Your task to perform on an android device: turn on javascript in the chrome app Image 0: 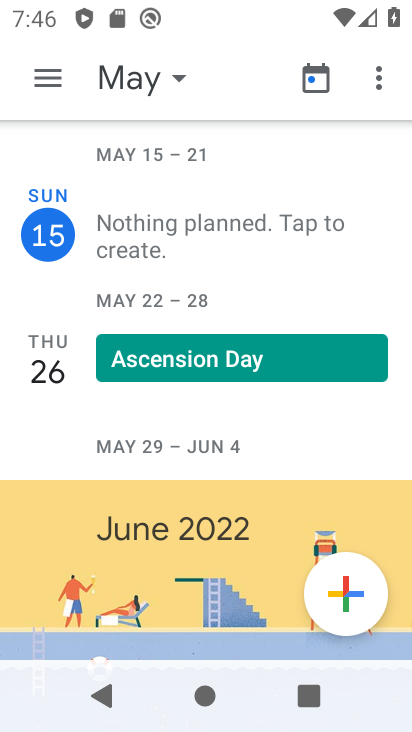
Step 0: press home button
Your task to perform on an android device: turn on javascript in the chrome app Image 1: 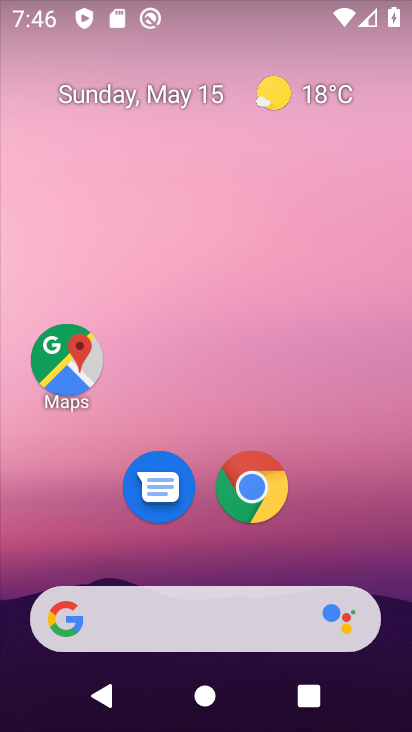
Step 1: click (265, 485)
Your task to perform on an android device: turn on javascript in the chrome app Image 2: 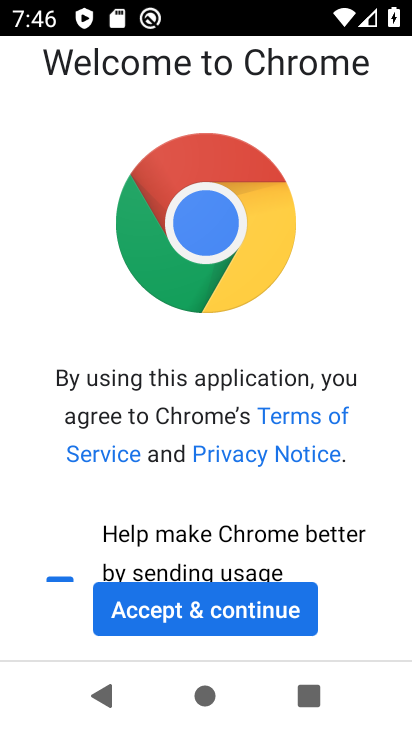
Step 2: click (205, 606)
Your task to perform on an android device: turn on javascript in the chrome app Image 3: 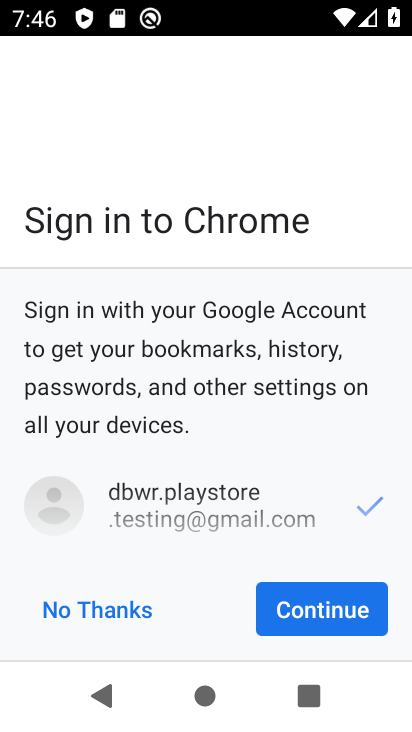
Step 3: click (340, 613)
Your task to perform on an android device: turn on javascript in the chrome app Image 4: 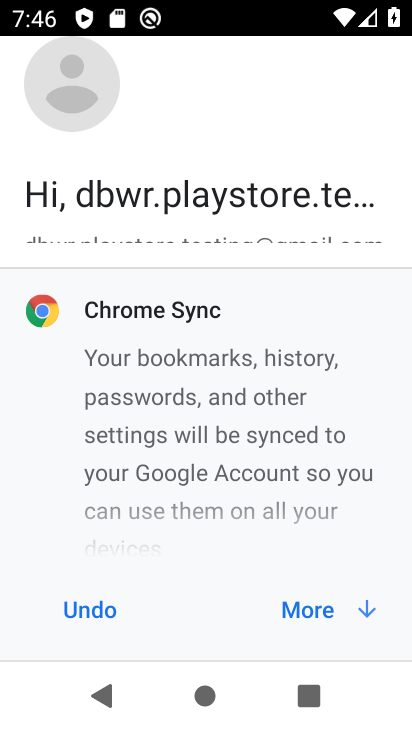
Step 4: click (340, 613)
Your task to perform on an android device: turn on javascript in the chrome app Image 5: 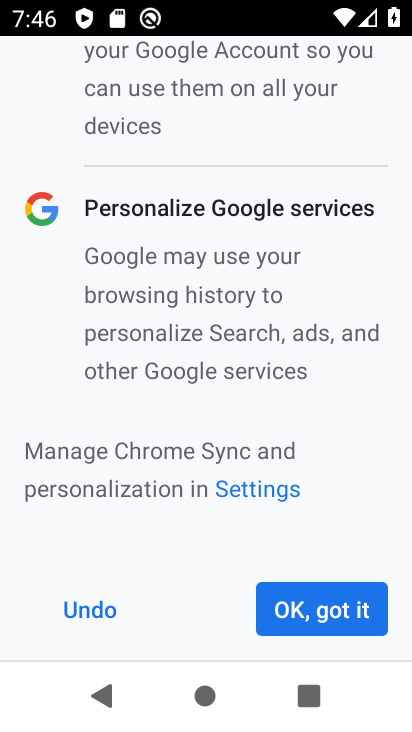
Step 5: click (340, 613)
Your task to perform on an android device: turn on javascript in the chrome app Image 6: 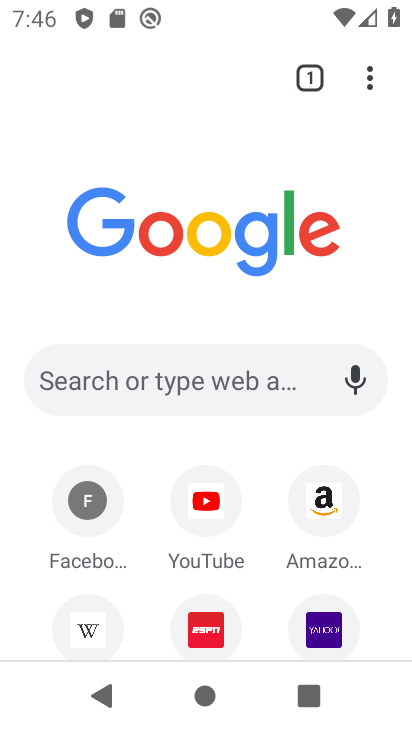
Step 6: click (388, 75)
Your task to perform on an android device: turn on javascript in the chrome app Image 7: 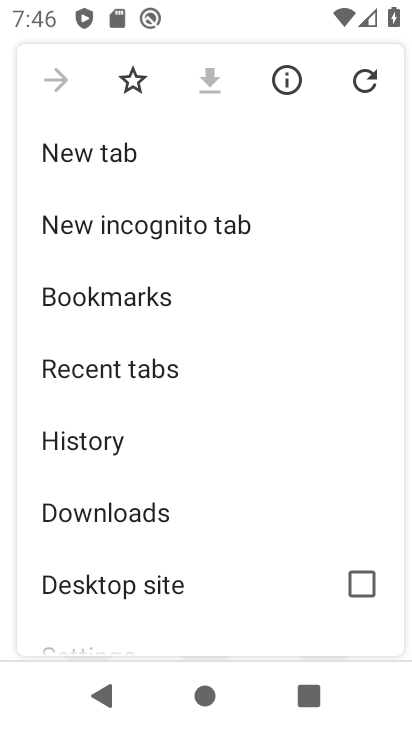
Step 7: drag from (99, 604) to (165, 208)
Your task to perform on an android device: turn on javascript in the chrome app Image 8: 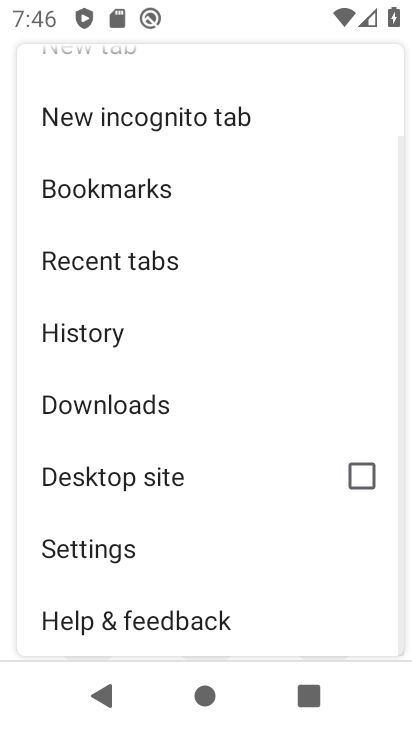
Step 8: drag from (163, 546) to (182, 360)
Your task to perform on an android device: turn on javascript in the chrome app Image 9: 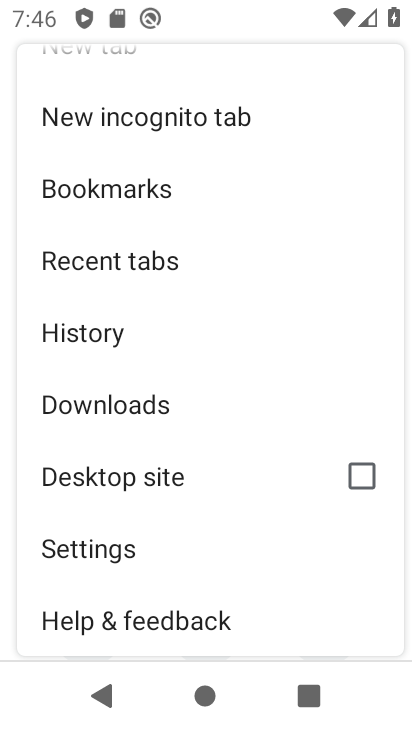
Step 9: click (169, 562)
Your task to perform on an android device: turn on javascript in the chrome app Image 10: 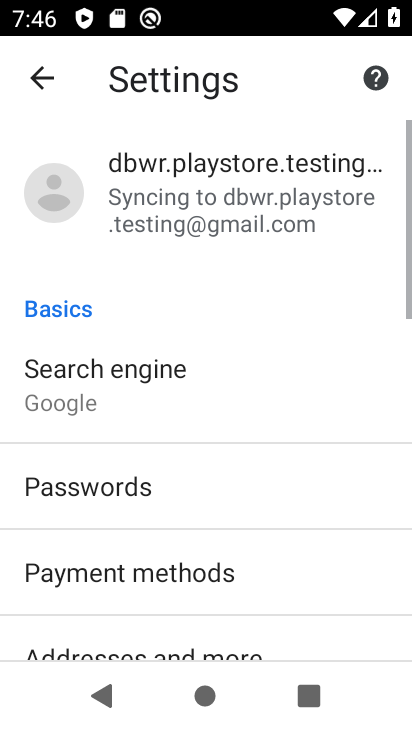
Step 10: drag from (169, 562) to (217, 174)
Your task to perform on an android device: turn on javascript in the chrome app Image 11: 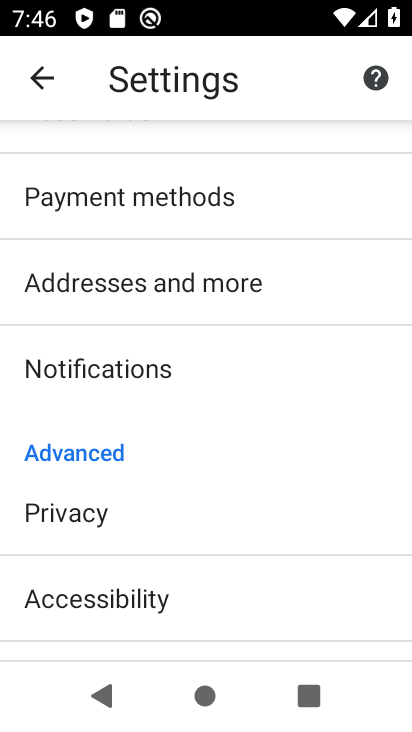
Step 11: drag from (86, 612) to (191, 260)
Your task to perform on an android device: turn on javascript in the chrome app Image 12: 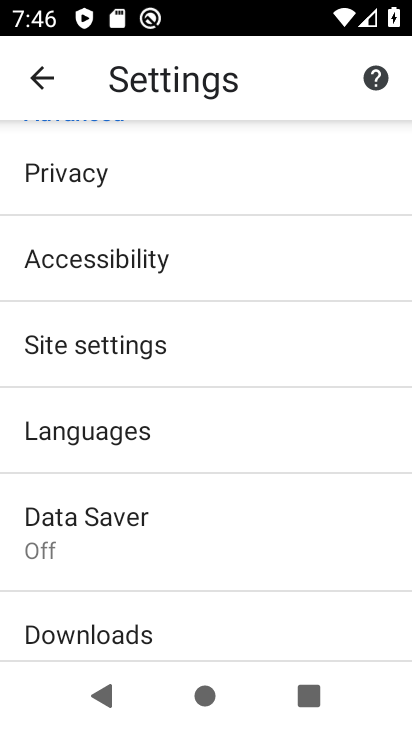
Step 12: click (176, 349)
Your task to perform on an android device: turn on javascript in the chrome app Image 13: 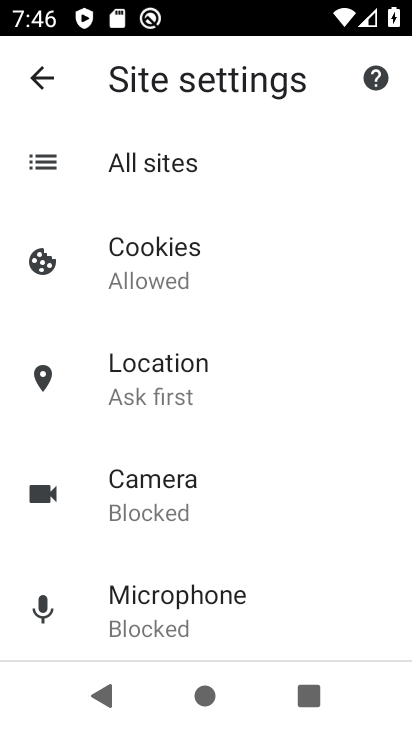
Step 13: drag from (110, 589) to (224, 108)
Your task to perform on an android device: turn on javascript in the chrome app Image 14: 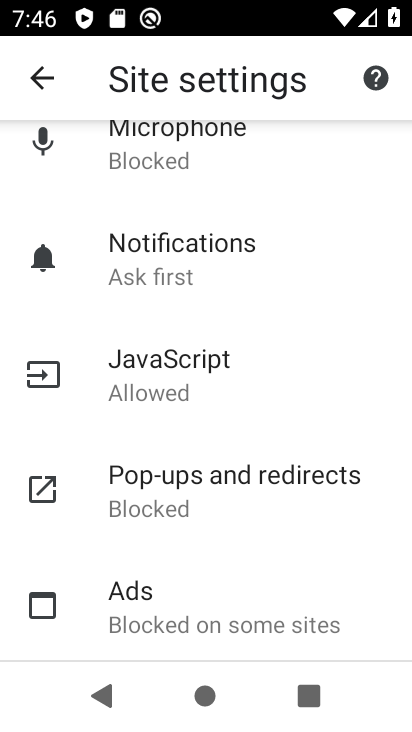
Step 14: click (184, 390)
Your task to perform on an android device: turn on javascript in the chrome app Image 15: 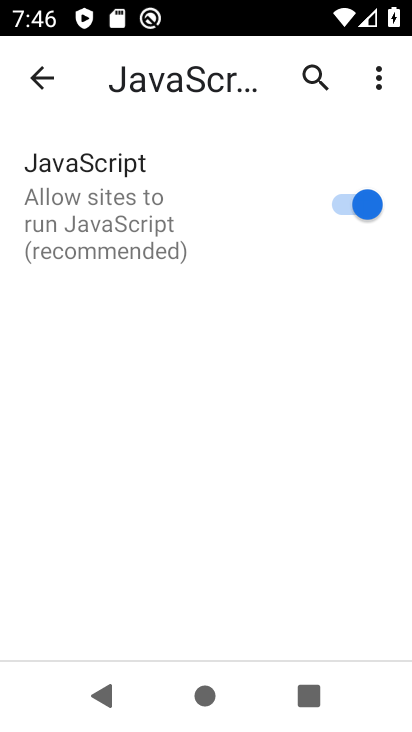
Step 15: task complete